Your task to perform on an android device: turn on translation in the chrome app Image 0: 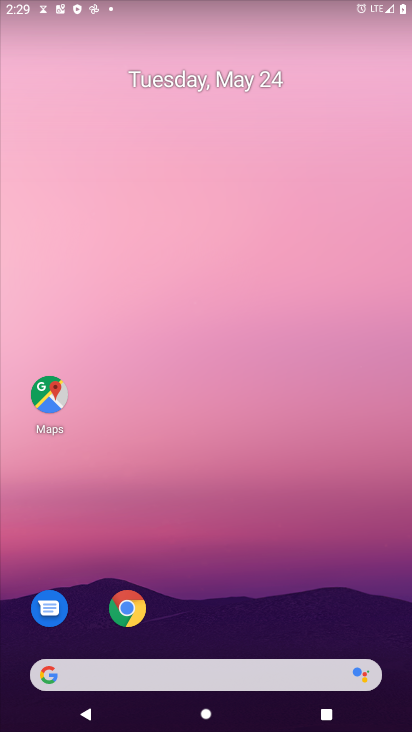
Step 0: drag from (253, 689) to (219, 194)
Your task to perform on an android device: turn on translation in the chrome app Image 1: 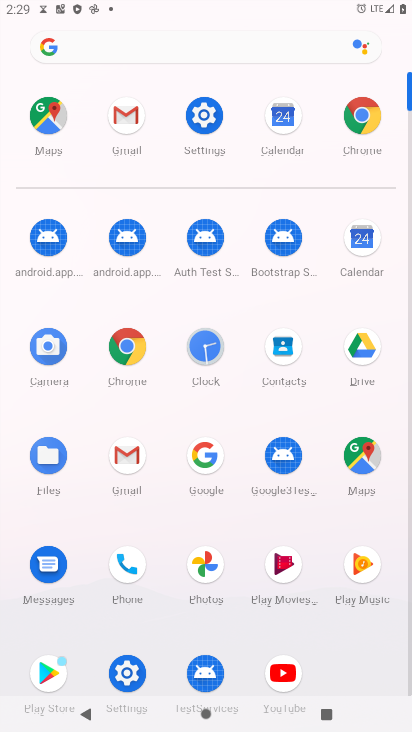
Step 1: click (366, 124)
Your task to perform on an android device: turn on translation in the chrome app Image 2: 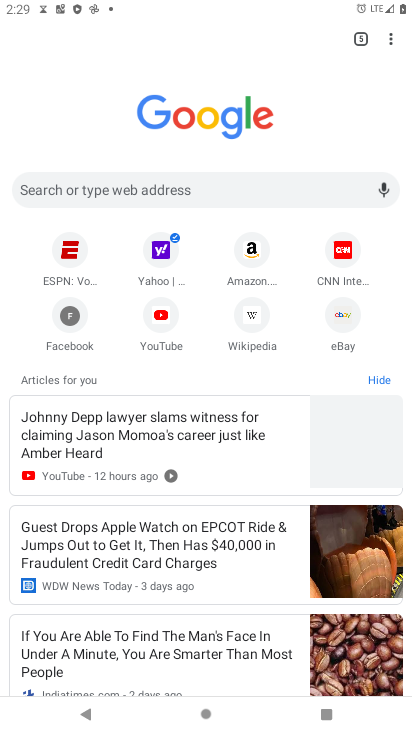
Step 2: click (389, 50)
Your task to perform on an android device: turn on translation in the chrome app Image 3: 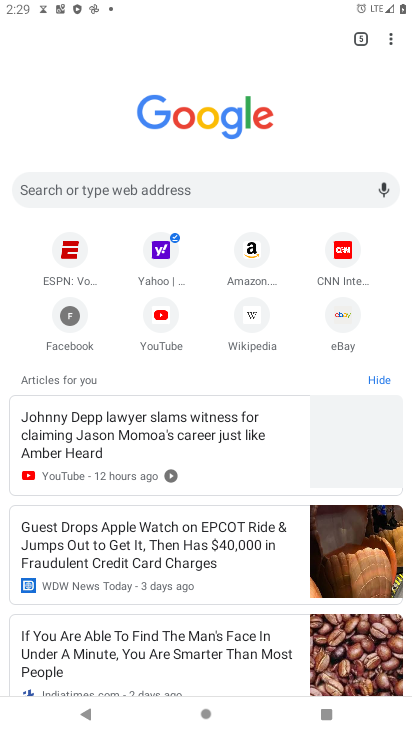
Step 3: click (391, 31)
Your task to perform on an android device: turn on translation in the chrome app Image 4: 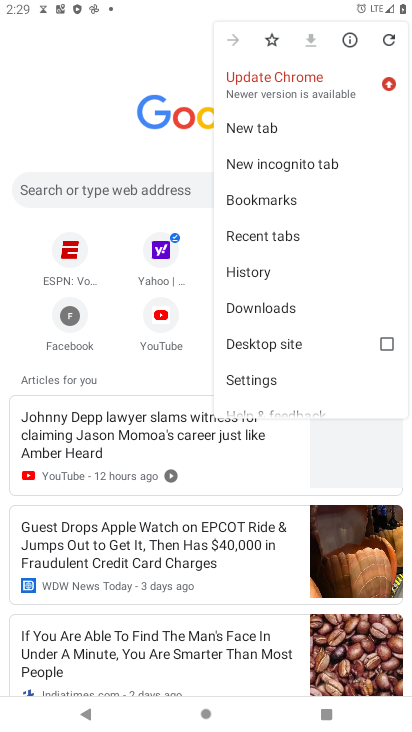
Step 4: click (257, 385)
Your task to perform on an android device: turn on translation in the chrome app Image 5: 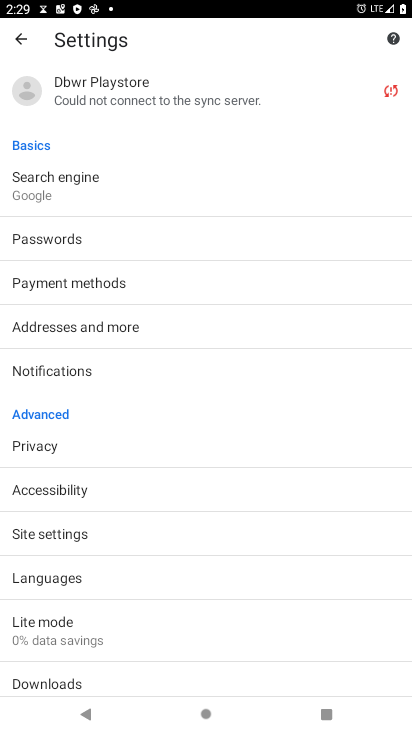
Step 5: click (101, 577)
Your task to perform on an android device: turn on translation in the chrome app Image 6: 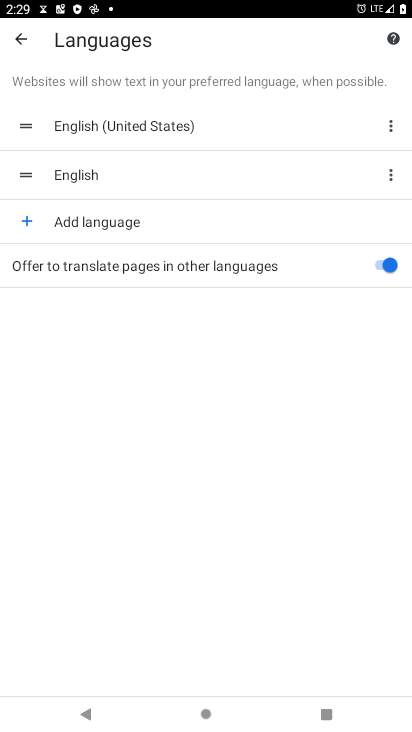
Step 6: click (366, 254)
Your task to perform on an android device: turn on translation in the chrome app Image 7: 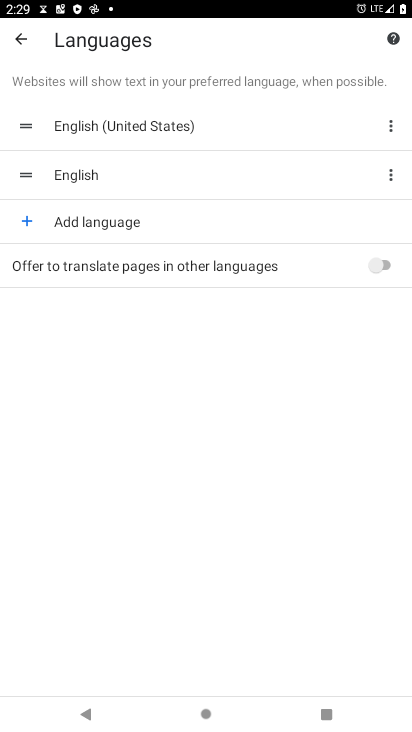
Step 7: click (366, 255)
Your task to perform on an android device: turn on translation in the chrome app Image 8: 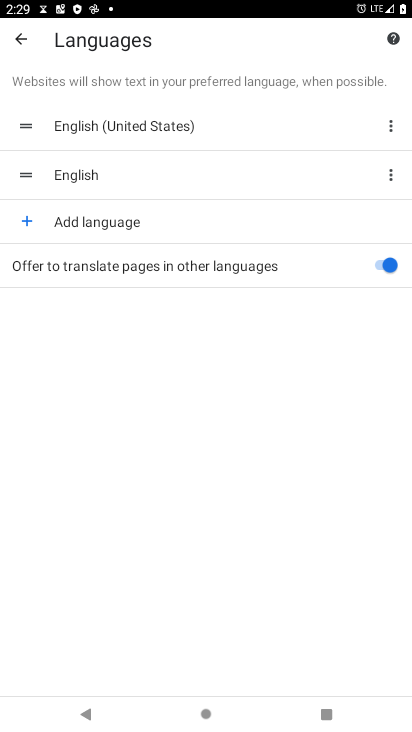
Step 8: task complete